Your task to perform on an android device: Is it going to rain this weekend? Image 0: 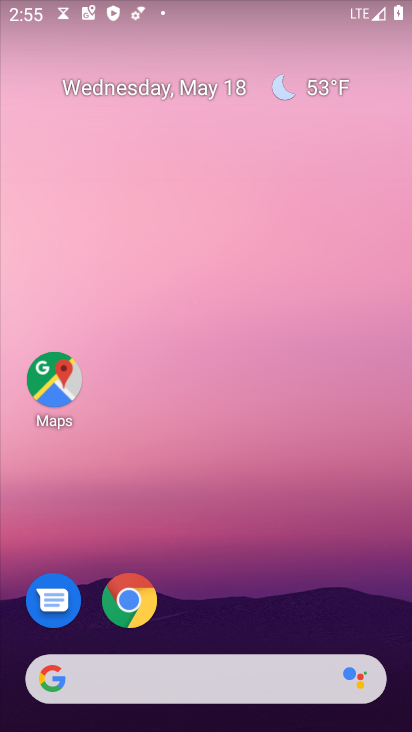
Step 0: press home button
Your task to perform on an android device: Is it going to rain this weekend? Image 1: 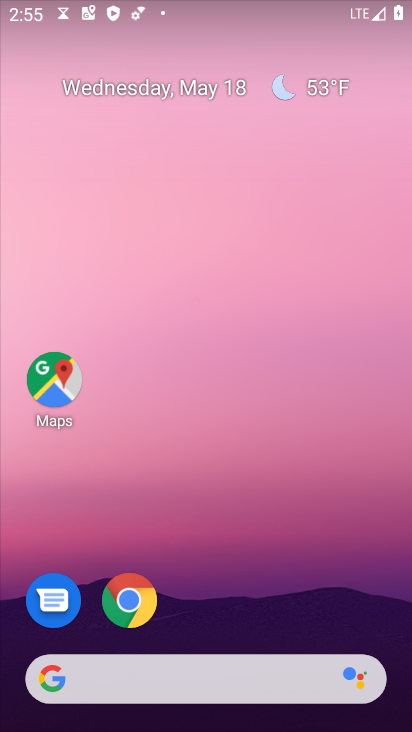
Step 1: click (335, 90)
Your task to perform on an android device: Is it going to rain this weekend? Image 2: 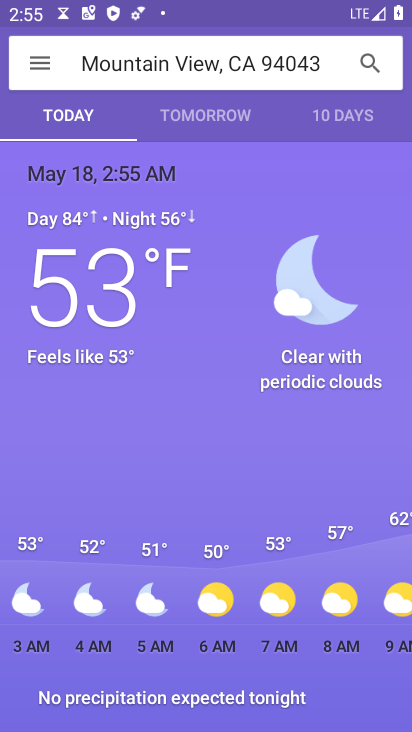
Step 2: click (347, 118)
Your task to perform on an android device: Is it going to rain this weekend? Image 3: 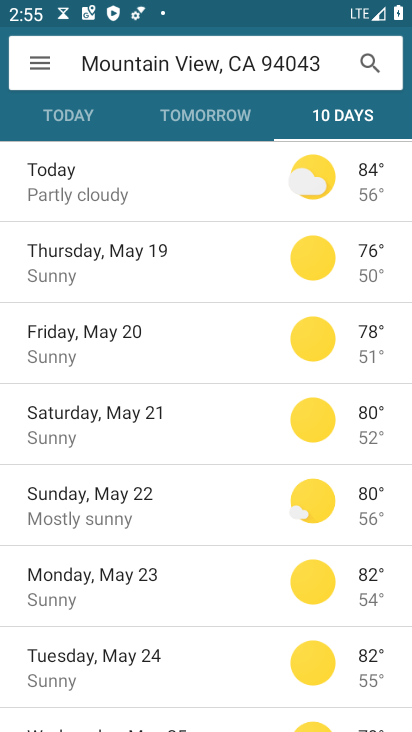
Step 3: click (157, 423)
Your task to perform on an android device: Is it going to rain this weekend? Image 4: 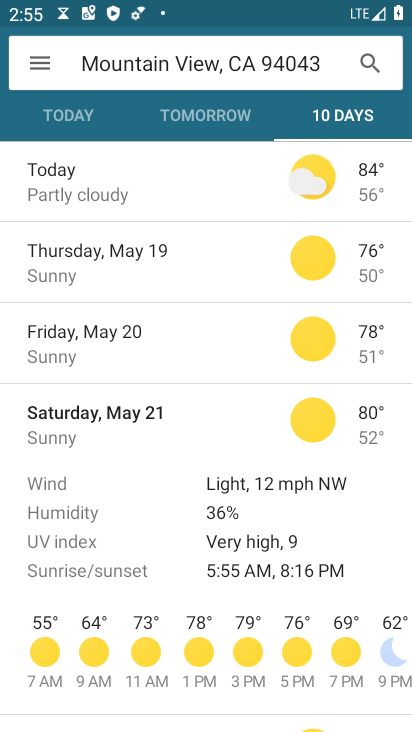
Step 4: task complete